Your task to perform on an android device: Go to calendar. Show me events next week Image 0: 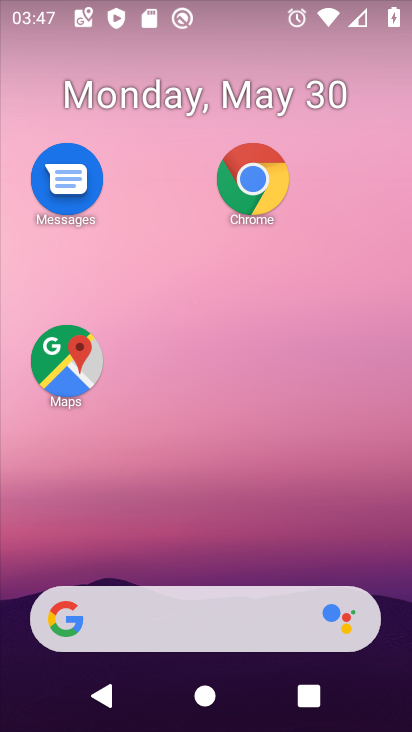
Step 0: drag from (223, 549) to (98, 18)
Your task to perform on an android device: Go to calendar. Show me events next week Image 1: 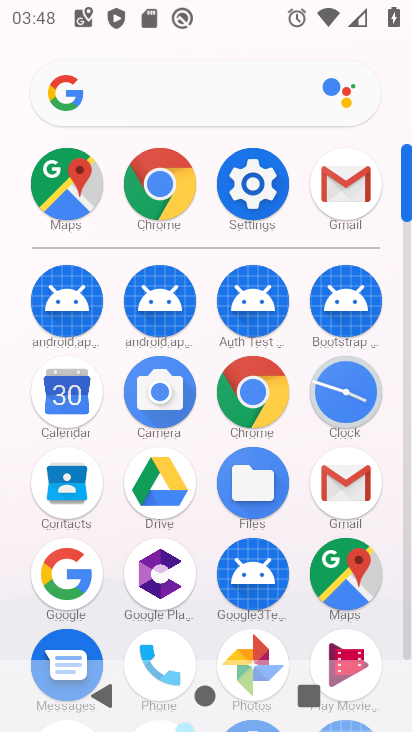
Step 1: click (70, 427)
Your task to perform on an android device: Go to calendar. Show me events next week Image 2: 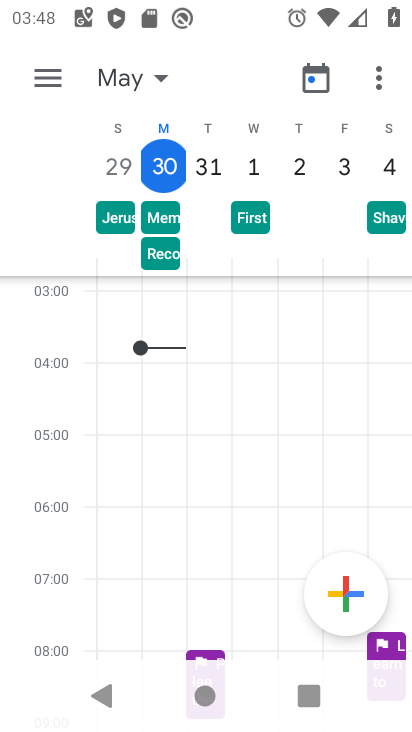
Step 2: click (109, 83)
Your task to perform on an android device: Go to calendar. Show me events next week Image 3: 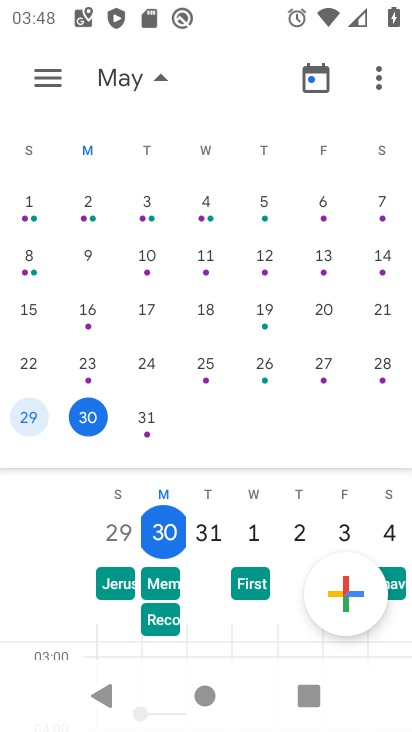
Step 3: drag from (244, 281) to (49, 277)
Your task to perform on an android device: Go to calendar. Show me events next week Image 4: 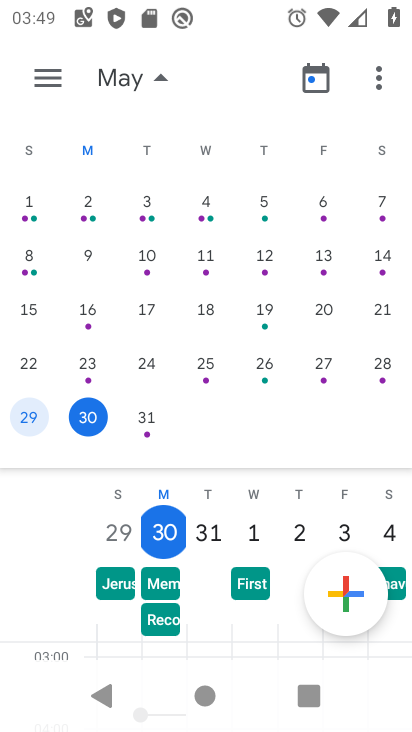
Step 4: drag from (320, 252) to (58, 262)
Your task to perform on an android device: Go to calendar. Show me events next week Image 5: 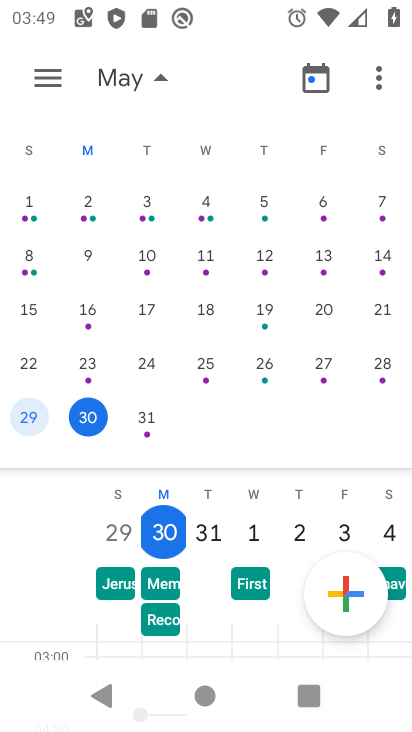
Step 5: drag from (384, 297) to (7, 330)
Your task to perform on an android device: Go to calendar. Show me events next week Image 6: 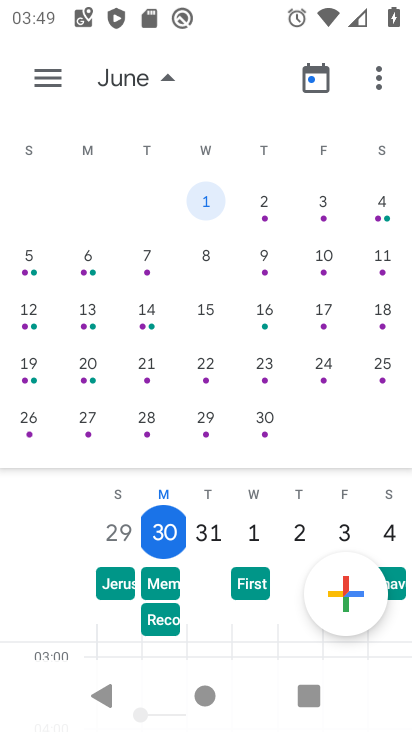
Step 6: click (206, 211)
Your task to perform on an android device: Go to calendar. Show me events next week Image 7: 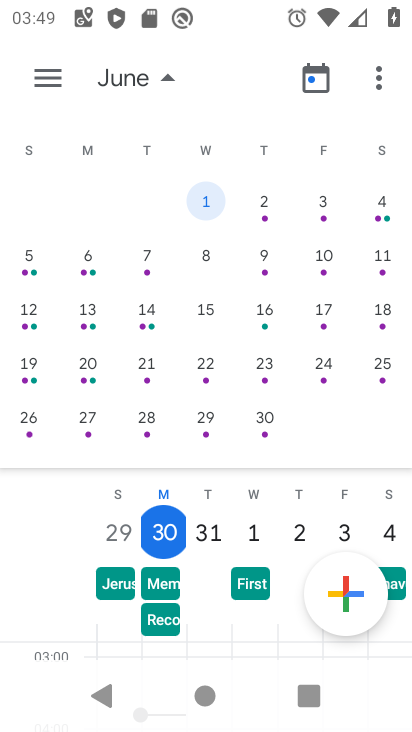
Step 7: click (202, 199)
Your task to perform on an android device: Go to calendar. Show me events next week Image 8: 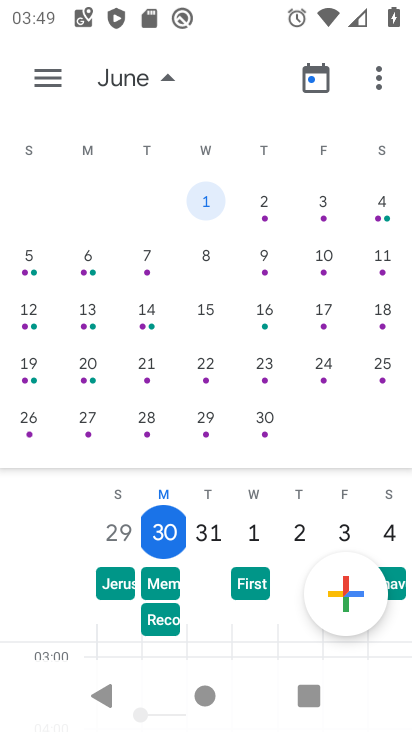
Step 8: click (202, 199)
Your task to perform on an android device: Go to calendar. Show me events next week Image 9: 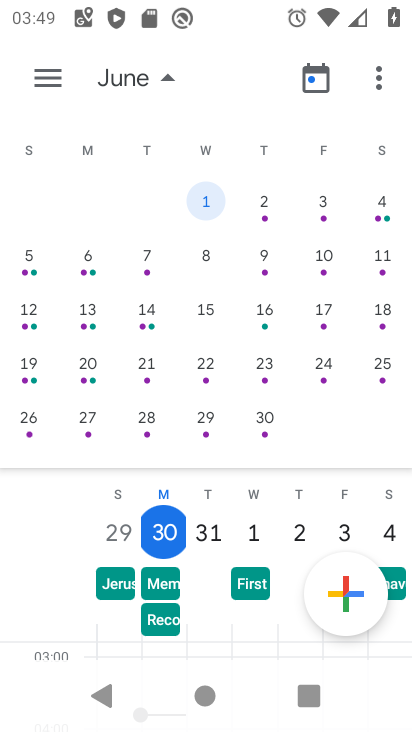
Step 9: click (208, 199)
Your task to perform on an android device: Go to calendar. Show me events next week Image 10: 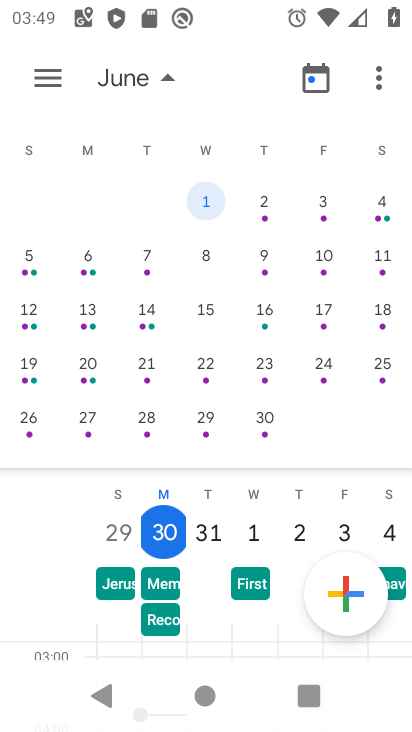
Step 10: click (212, 217)
Your task to perform on an android device: Go to calendar. Show me events next week Image 11: 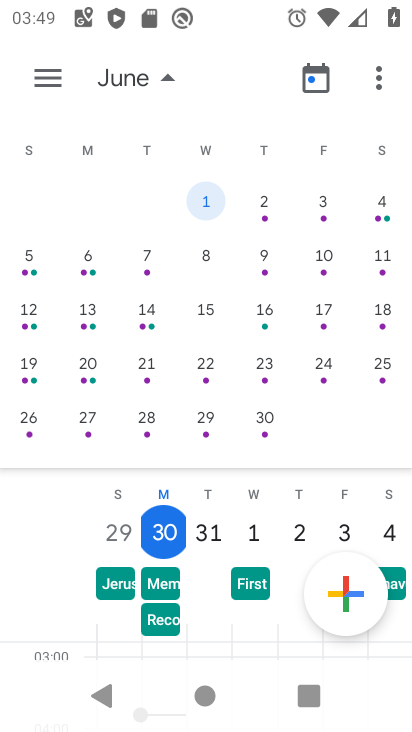
Step 11: click (200, 209)
Your task to perform on an android device: Go to calendar. Show me events next week Image 12: 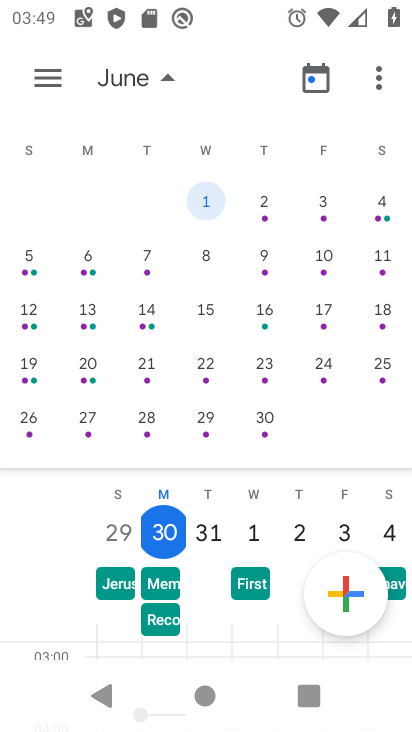
Step 12: click (209, 196)
Your task to perform on an android device: Go to calendar. Show me events next week Image 13: 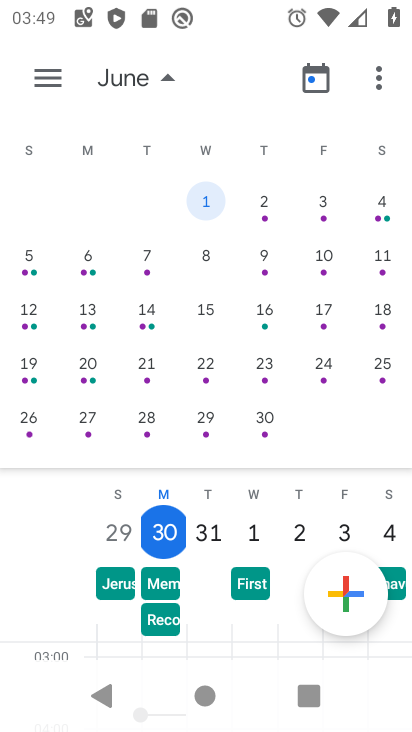
Step 13: click (209, 196)
Your task to perform on an android device: Go to calendar. Show me events next week Image 14: 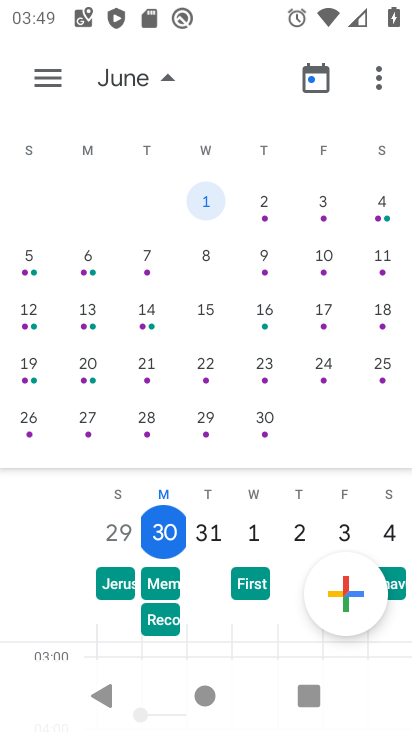
Step 14: task complete